Your task to perform on an android device: create a new album in the google photos Image 0: 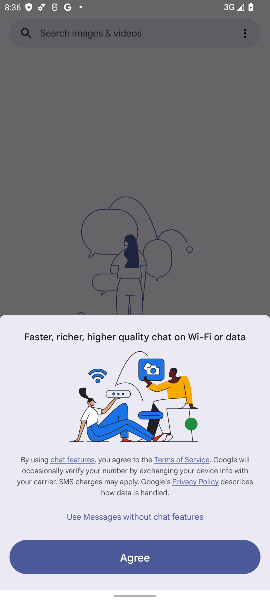
Step 0: press home button
Your task to perform on an android device: create a new album in the google photos Image 1: 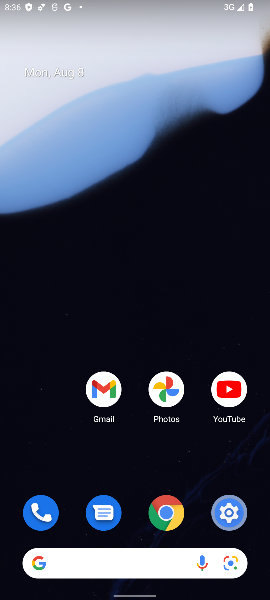
Step 1: click (162, 397)
Your task to perform on an android device: create a new album in the google photos Image 2: 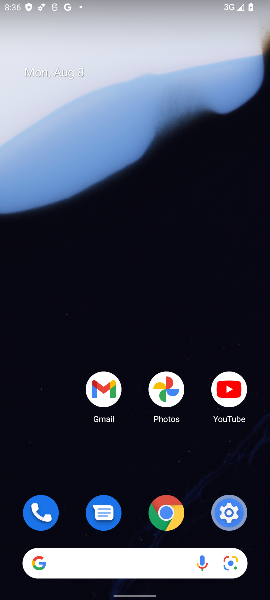
Step 2: click (162, 397)
Your task to perform on an android device: create a new album in the google photos Image 3: 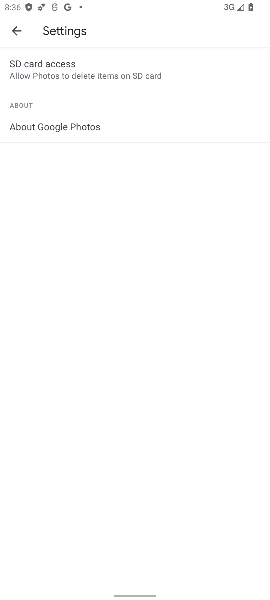
Step 3: click (14, 29)
Your task to perform on an android device: create a new album in the google photos Image 4: 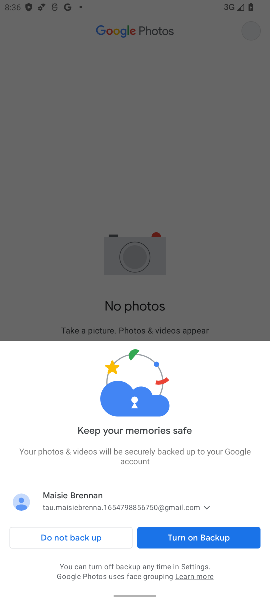
Step 4: click (189, 541)
Your task to perform on an android device: create a new album in the google photos Image 5: 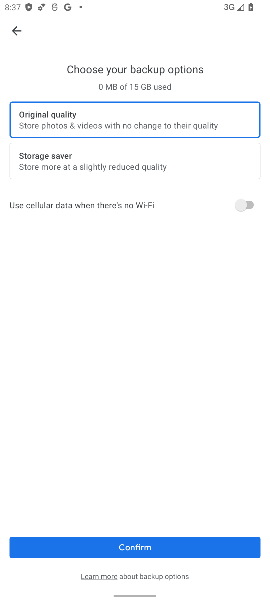
Step 5: click (158, 549)
Your task to perform on an android device: create a new album in the google photos Image 6: 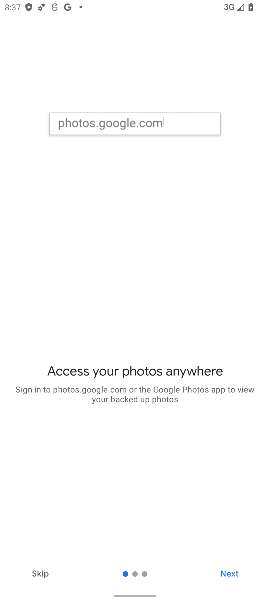
Step 6: click (232, 572)
Your task to perform on an android device: create a new album in the google photos Image 7: 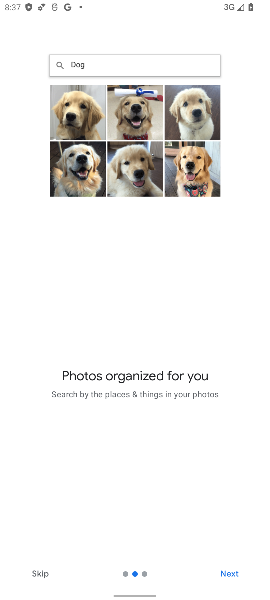
Step 7: click (232, 572)
Your task to perform on an android device: create a new album in the google photos Image 8: 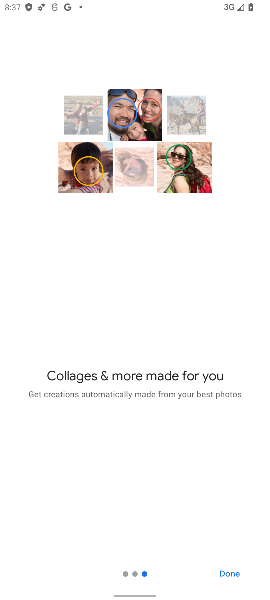
Step 8: click (232, 572)
Your task to perform on an android device: create a new album in the google photos Image 9: 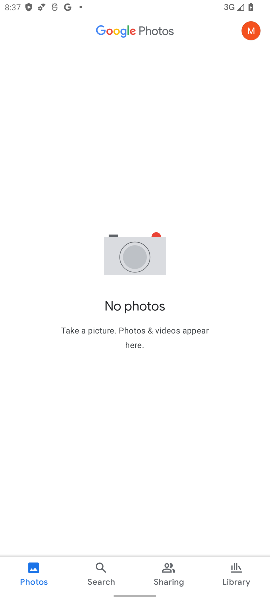
Step 9: task complete